Your task to perform on an android device: Open Maps and search for coffee Image 0: 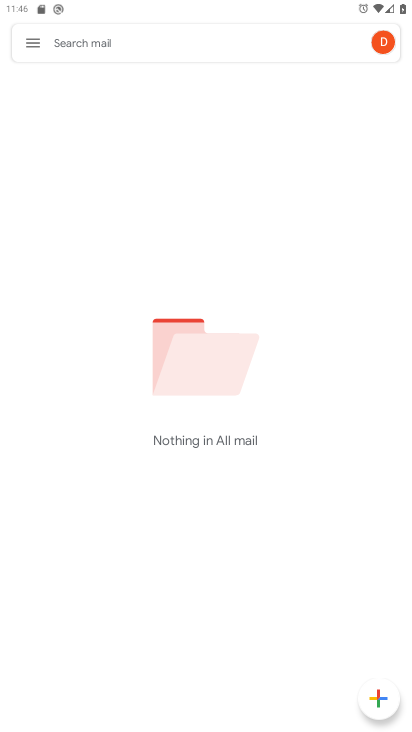
Step 0: press home button
Your task to perform on an android device: Open Maps and search for coffee Image 1: 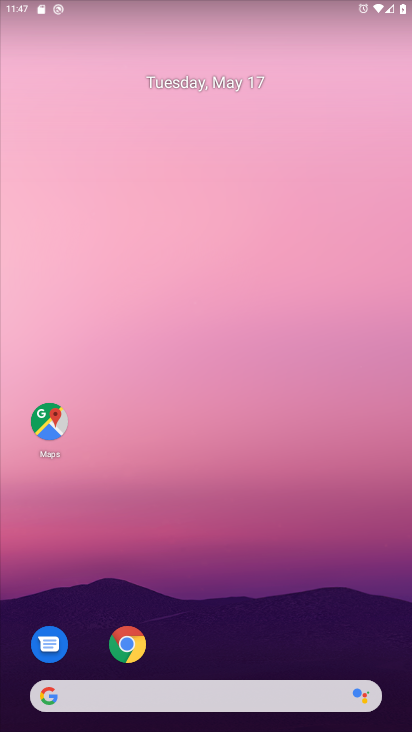
Step 1: drag from (228, 658) to (282, 64)
Your task to perform on an android device: Open Maps and search for coffee Image 2: 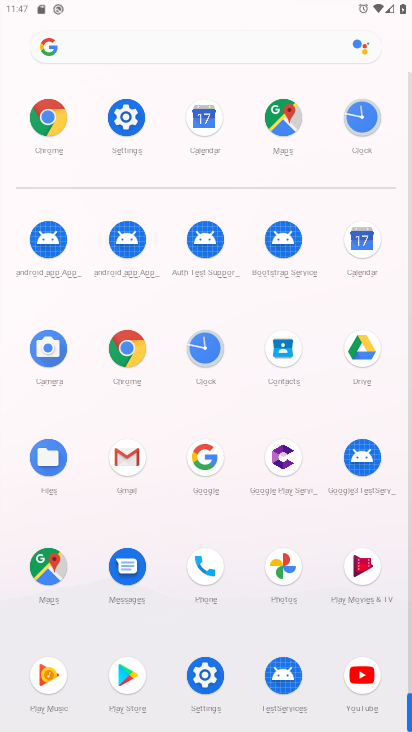
Step 2: click (279, 113)
Your task to perform on an android device: Open Maps and search for coffee Image 3: 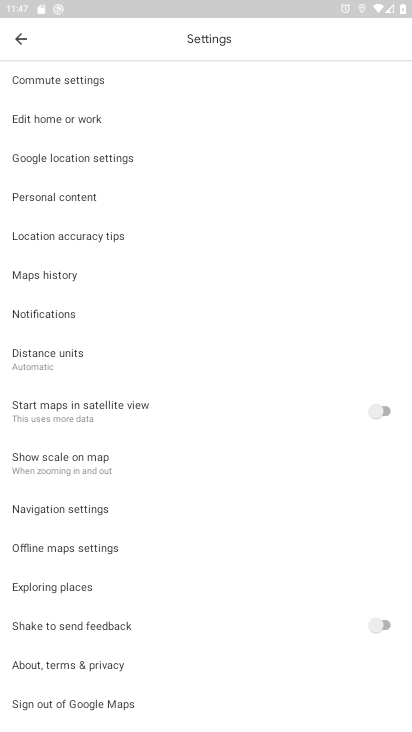
Step 3: click (26, 34)
Your task to perform on an android device: Open Maps and search for coffee Image 4: 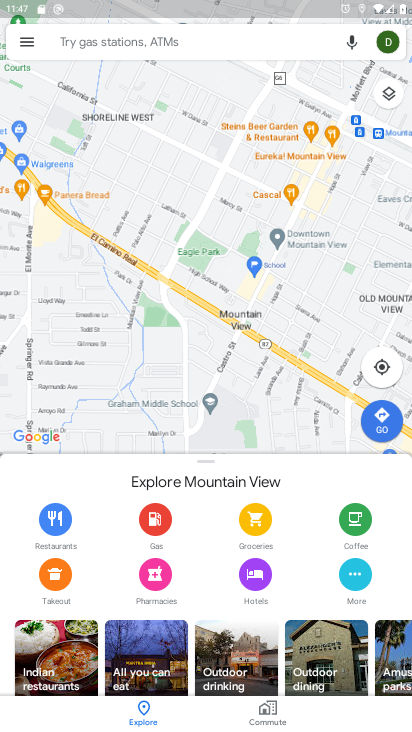
Step 4: click (128, 38)
Your task to perform on an android device: Open Maps and search for coffee Image 5: 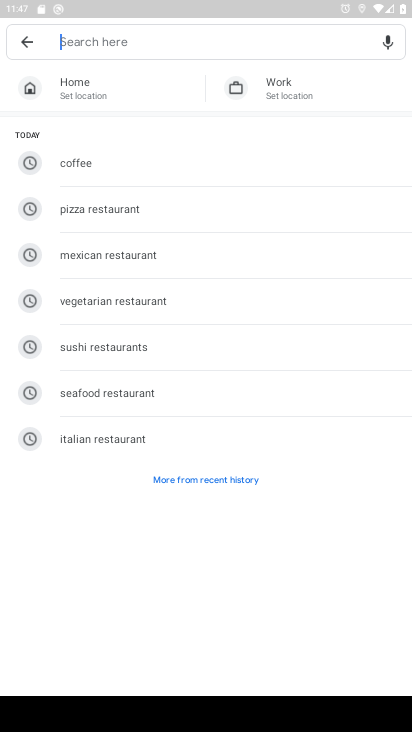
Step 5: click (83, 166)
Your task to perform on an android device: Open Maps and search for coffee Image 6: 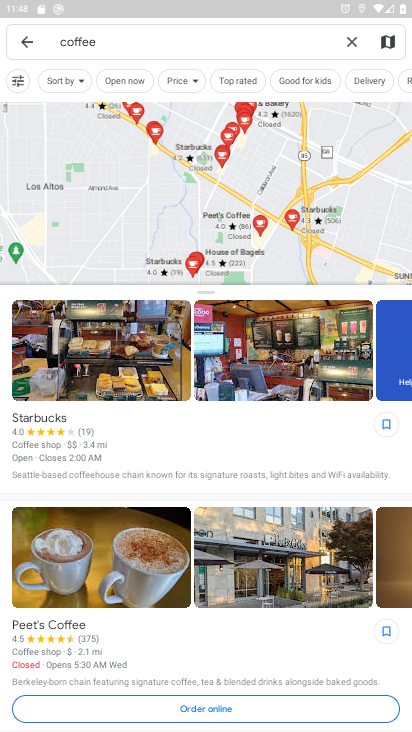
Step 6: task complete